Your task to perform on an android device: see creations saved in the google photos Image 0: 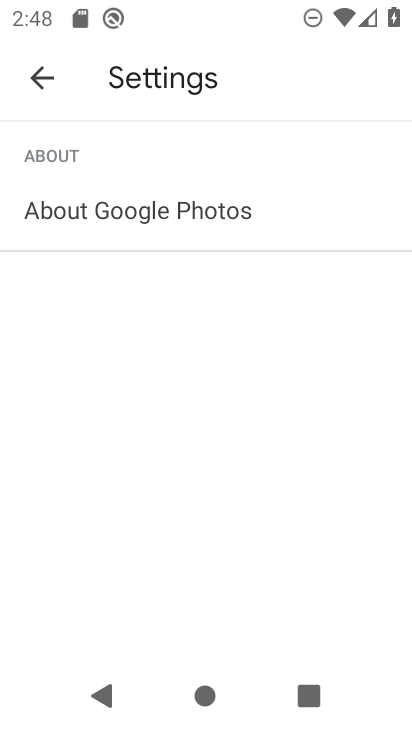
Step 0: press back button
Your task to perform on an android device: see creations saved in the google photos Image 1: 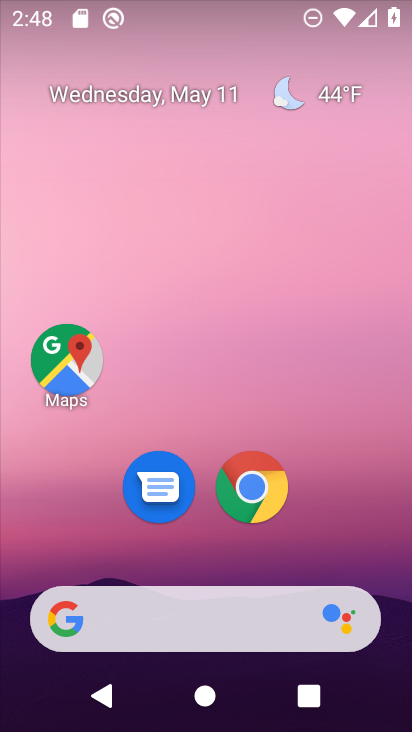
Step 1: drag from (182, 561) to (334, 64)
Your task to perform on an android device: see creations saved in the google photos Image 2: 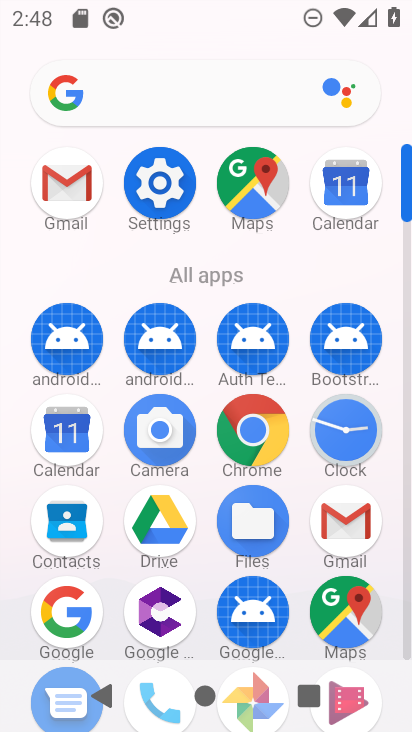
Step 2: drag from (187, 584) to (320, 102)
Your task to perform on an android device: see creations saved in the google photos Image 3: 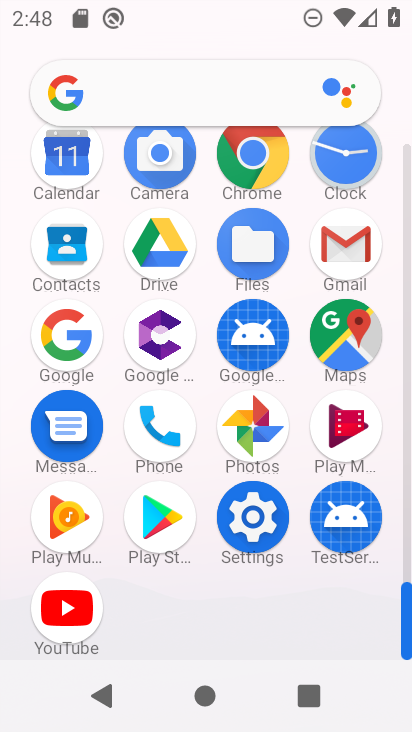
Step 3: click (257, 435)
Your task to perform on an android device: see creations saved in the google photos Image 4: 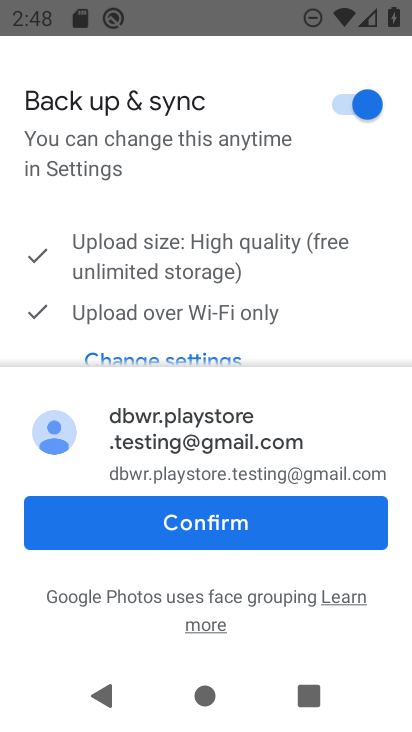
Step 4: click (197, 543)
Your task to perform on an android device: see creations saved in the google photos Image 5: 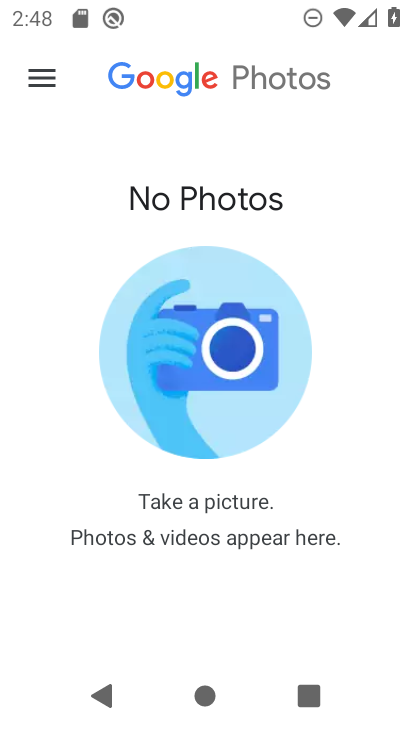
Step 5: click (42, 75)
Your task to perform on an android device: see creations saved in the google photos Image 6: 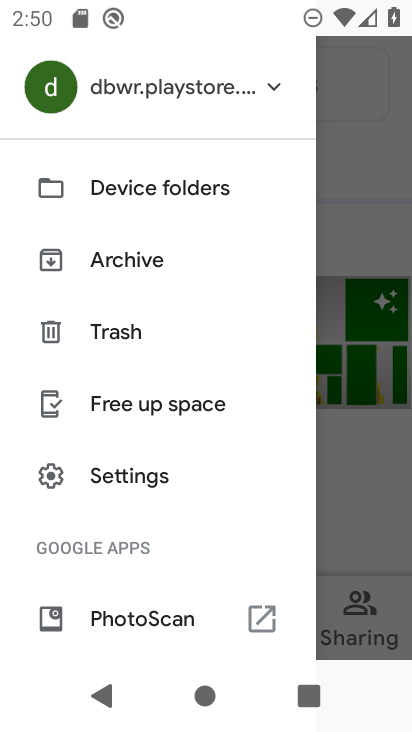
Step 6: click (122, 243)
Your task to perform on an android device: see creations saved in the google photos Image 7: 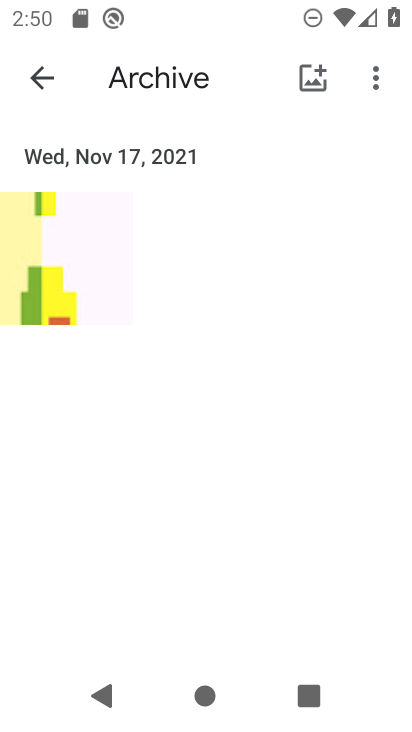
Step 7: task complete